Your task to perform on an android device: Go to privacy settings Image 0: 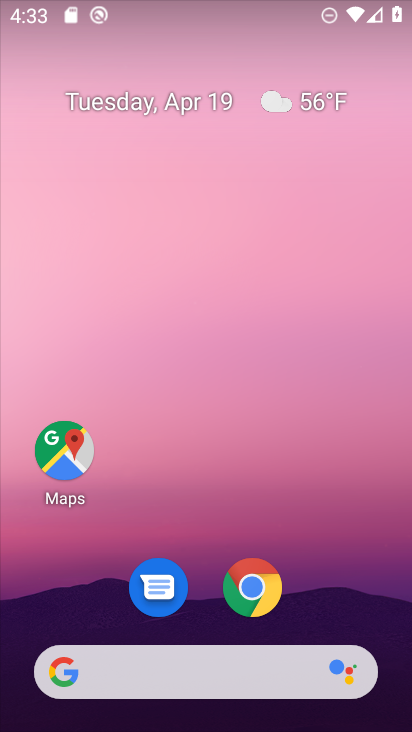
Step 0: drag from (199, 723) to (199, 55)
Your task to perform on an android device: Go to privacy settings Image 1: 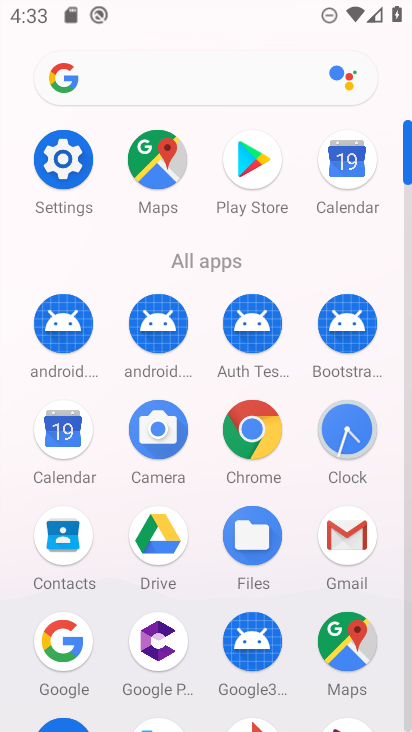
Step 1: click (63, 165)
Your task to perform on an android device: Go to privacy settings Image 2: 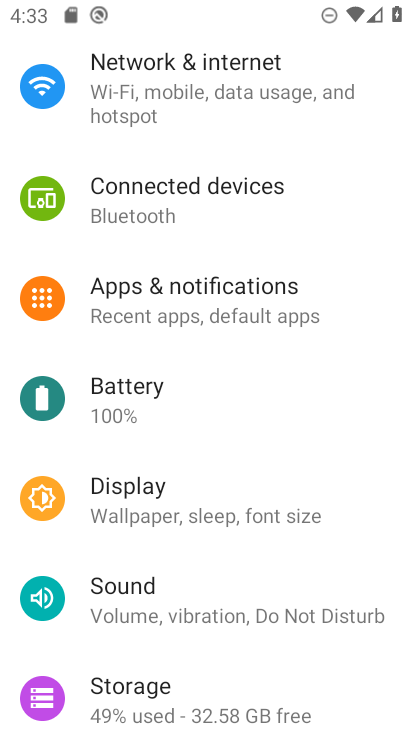
Step 2: drag from (182, 674) to (190, 207)
Your task to perform on an android device: Go to privacy settings Image 3: 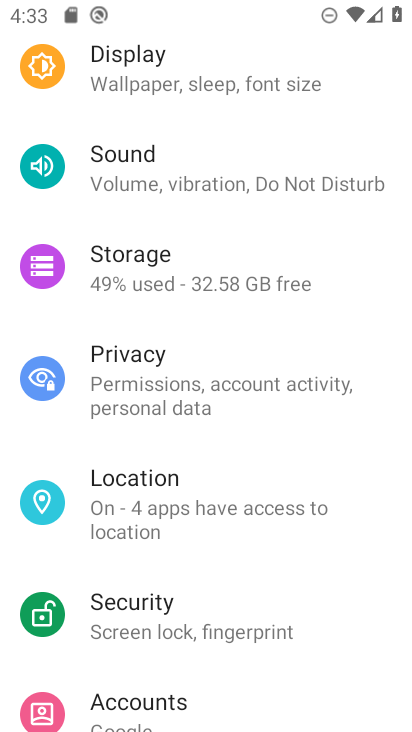
Step 3: click (156, 382)
Your task to perform on an android device: Go to privacy settings Image 4: 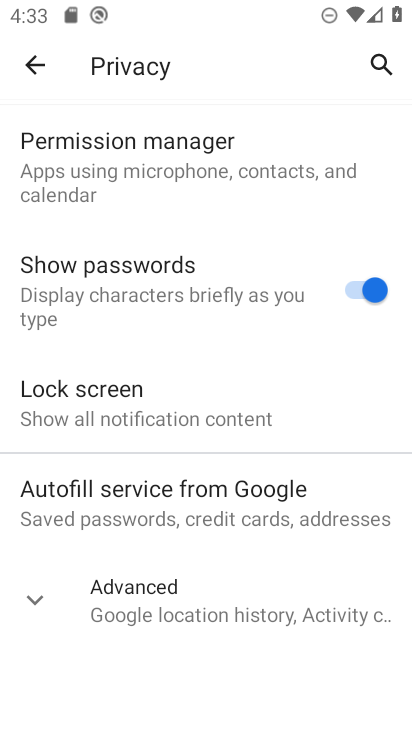
Step 4: task complete